Your task to perform on an android device: turn smart compose on in the gmail app Image 0: 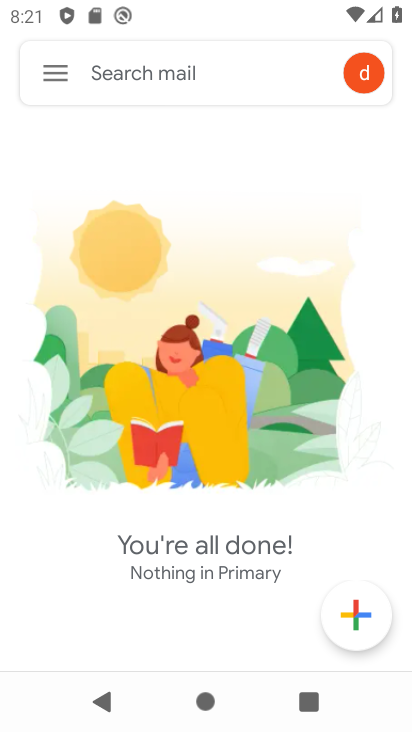
Step 0: press home button
Your task to perform on an android device: turn smart compose on in the gmail app Image 1: 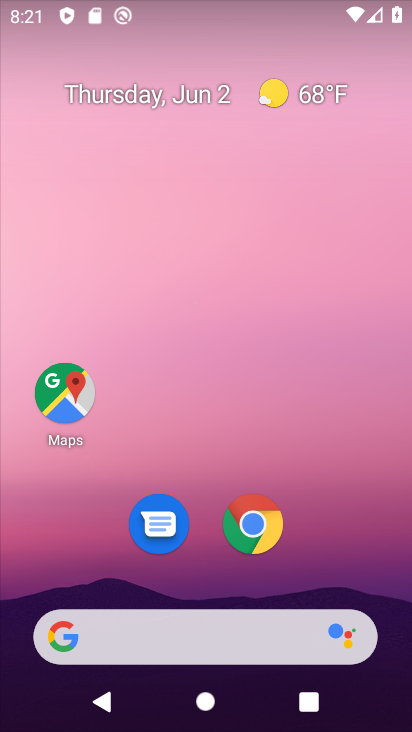
Step 1: drag from (219, 467) to (207, 8)
Your task to perform on an android device: turn smart compose on in the gmail app Image 2: 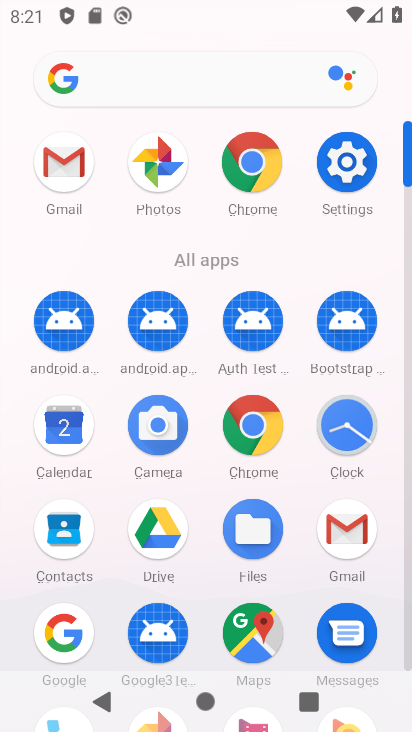
Step 2: click (74, 164)
Your task to perform on an android device: turn smart compose on in the gmail app Image 3: 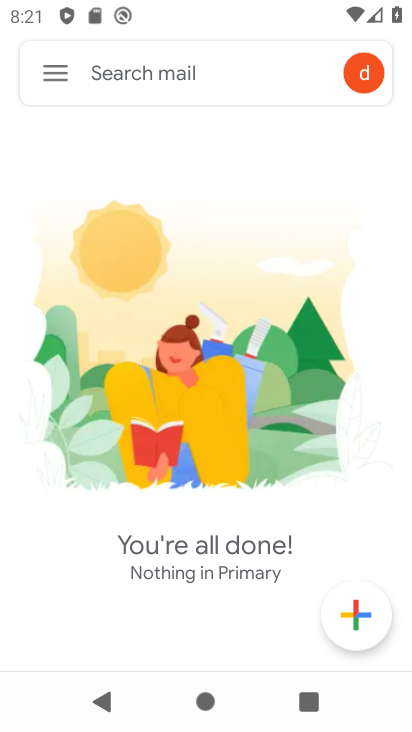
Step 3: click (61, 69)
Your task to perform on an android device: turn smart compose on in the gmail app Image 4: 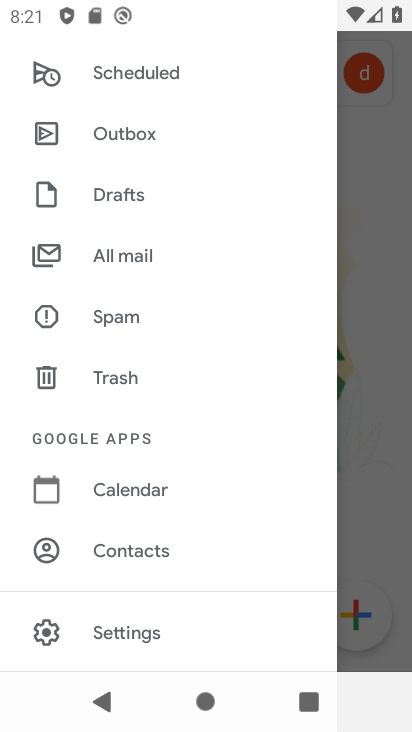
Step 4: click (157, 624)
Your task to perform on an android device: turn smart compose on in the gmail app Image 5: 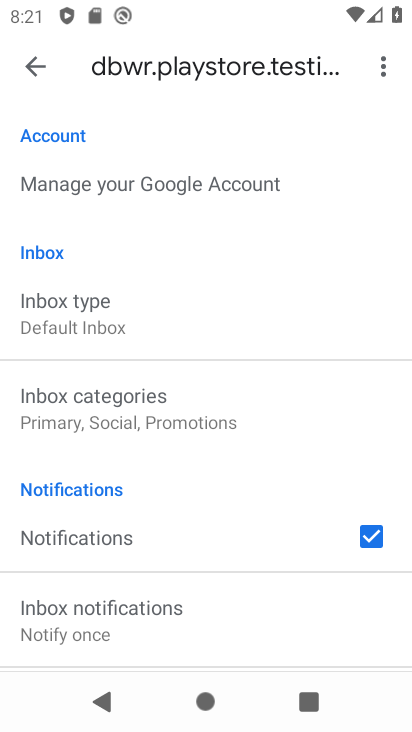
Step 5: task complete